Your task to perform on an android device: change notifications settings Image 0: 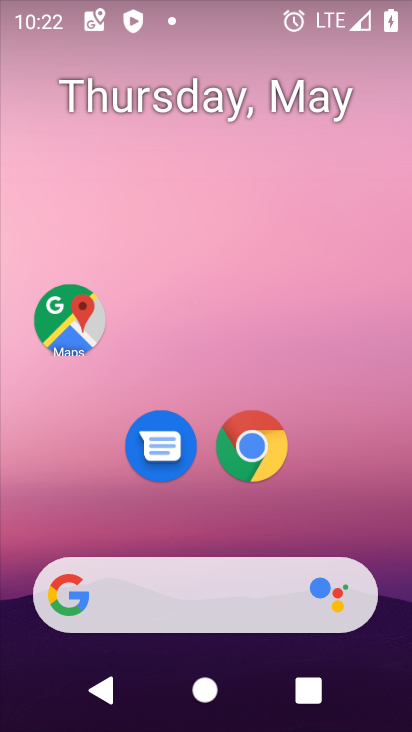
Step 0: drag from (402, 607) to (316, 28)
Your task to perform on an android device: change notifications settings Image 1: 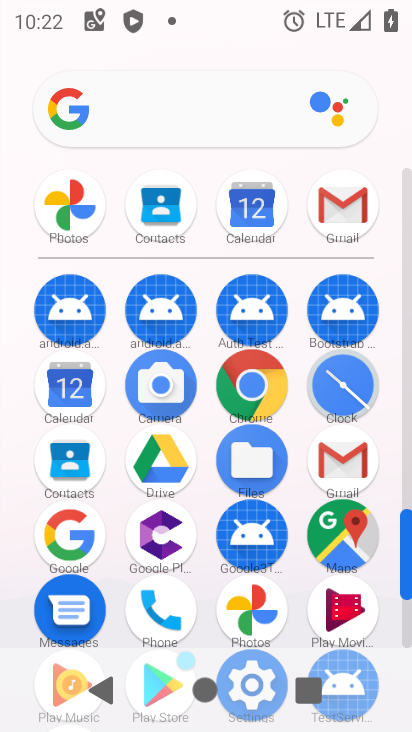
Step 1: click (408, 629)
Your task to perform on an android device: change notifications settings Image 2: 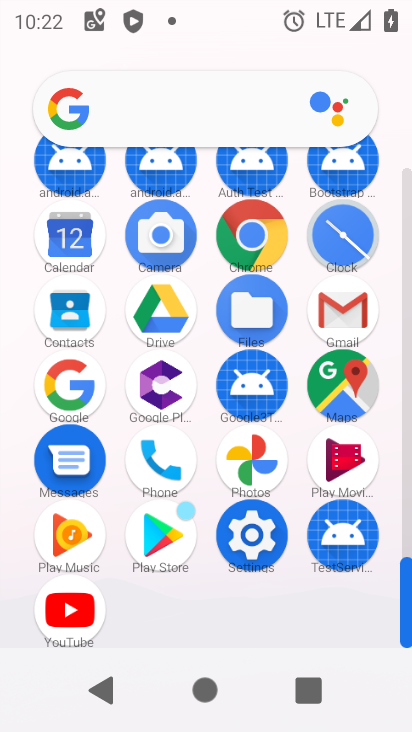
Step 2: click (253, 531)
Your task to perform on an android device: change notifications settings Image 3: 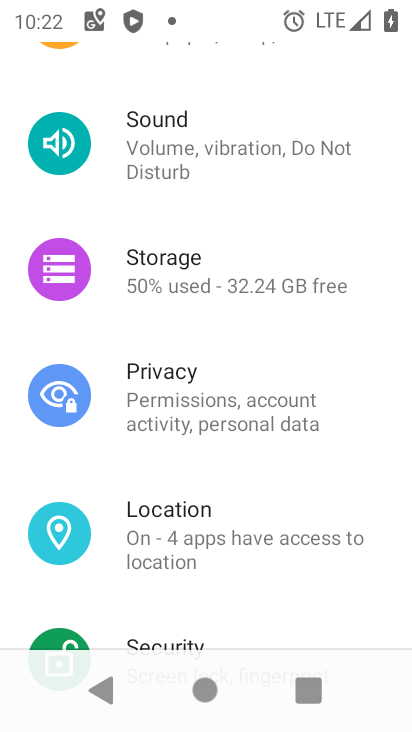
Step 3: drag from (371, 209) to (362, 498)
Your task to perform on an android device: change notifications settings Image 4: 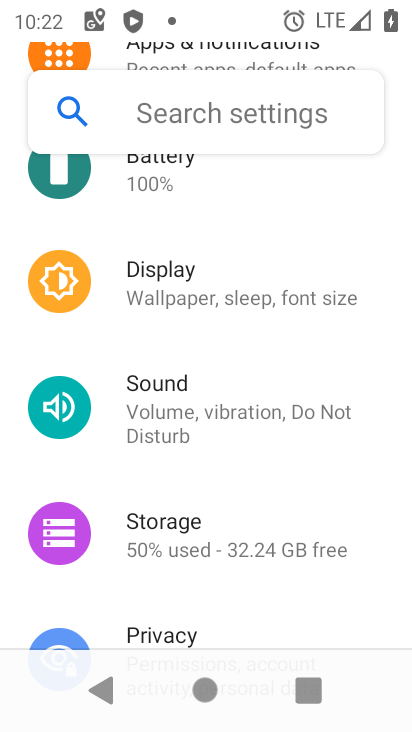
Step 4: drag from (370, 223) to (371, 526)
Your task to perform on an android device: change notifications settings Image 5: 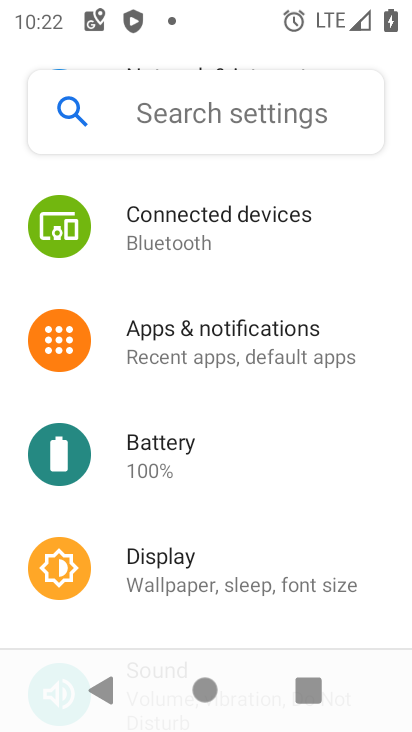
Step 5: click (182, 343)
Your task to perform on an android device: change notifications settings Image 6: 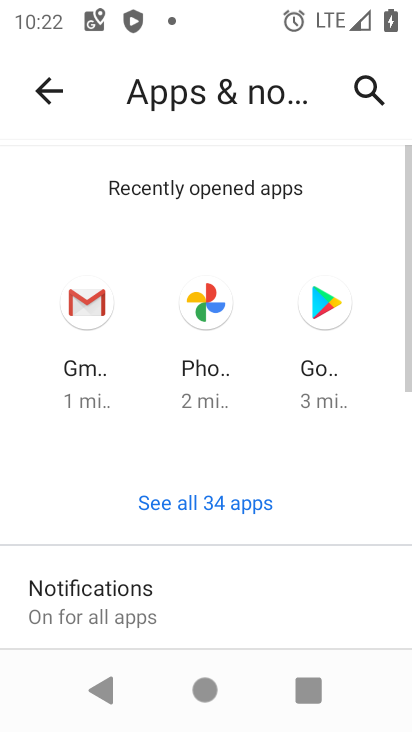
Step 6: drag from (224, 604) to (245, 270)
Your task to perform on an android device: change notifications settings Image 7: 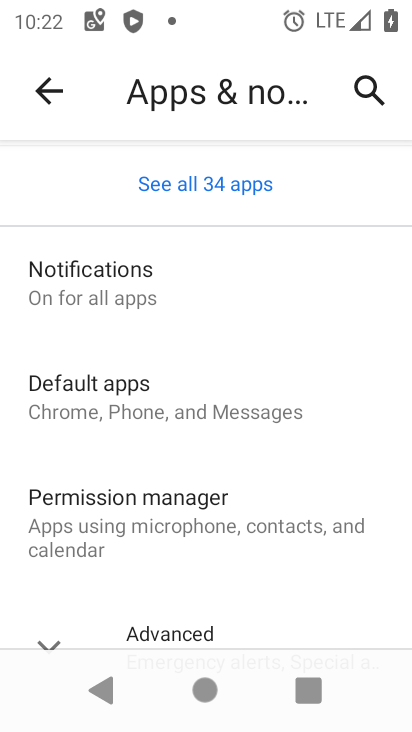
Step 7: click (65, 276)
Your task to perform on an android device: change notifications settings Image 8: 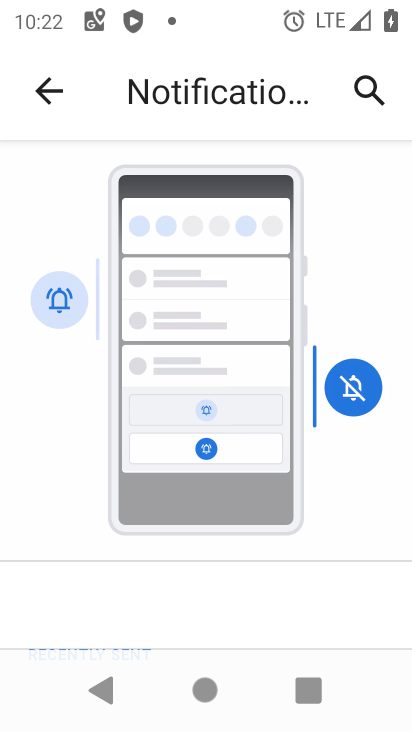
Step 8: drag from (279, 595) to (216, 222)
Your task to perform on an android device: change notifications settings Image 9: 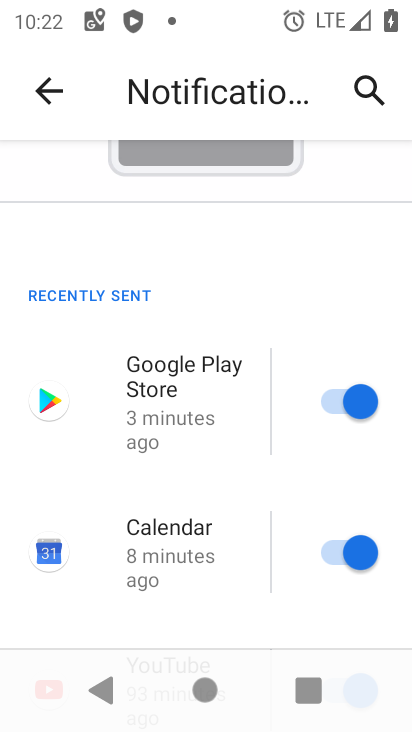
Step 9: drag from (273, 588) to (167, 176)
Your task to perform on an android device: change notifications settings Image 10: 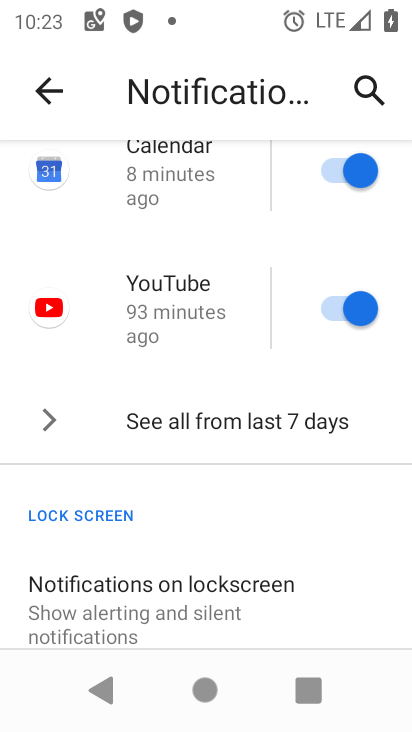
Step 10: drag from (243, 555) to (247, 116)
Your task to perform on an android device: change notifications settings Image 11: 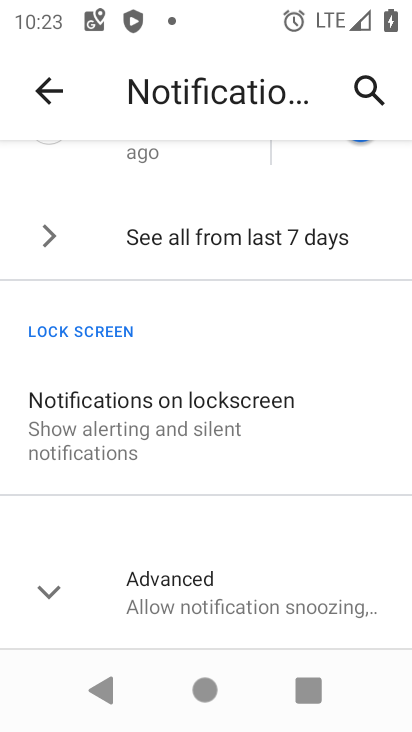
Step 11: click (45, 585)
Your task to perform on an android device: change notifications settings Image 12: 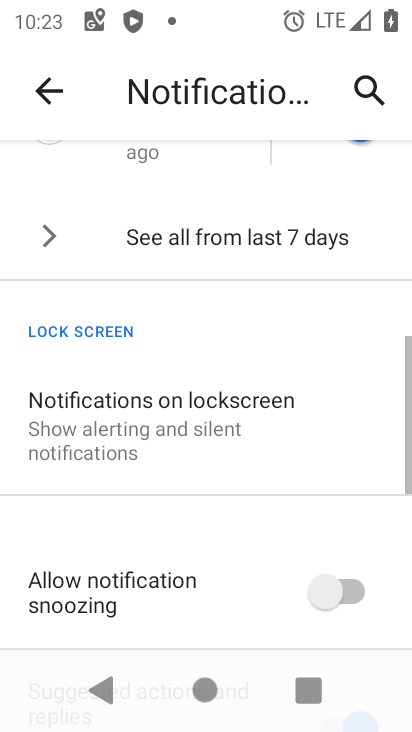
Step 12: drag from (271, 557) to (256, 154)
Your task to perform on an android device: change notifications settings Image 13: 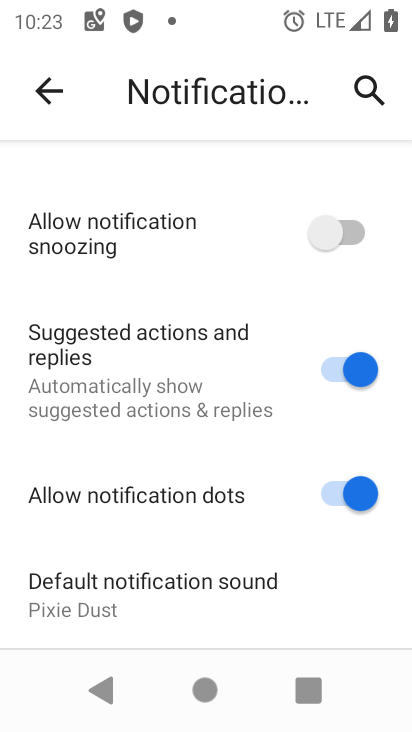
Step 13: click (349, 230)
Your task to perform on an android device: change notifications settings Image 14: 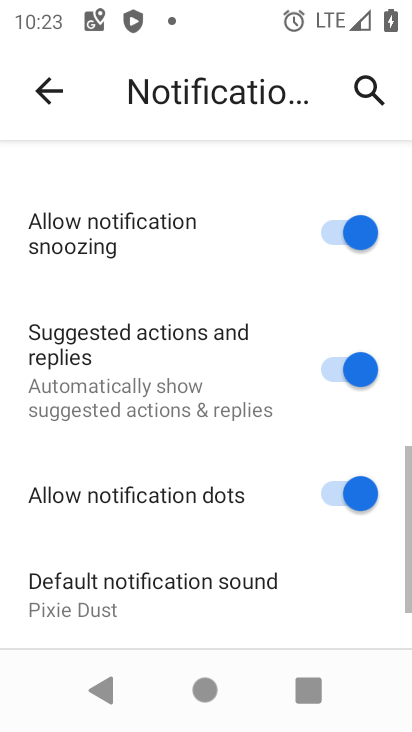
Step 14: click (333, 501)
Your task to perform on an android device: change notifications settings Image 15: 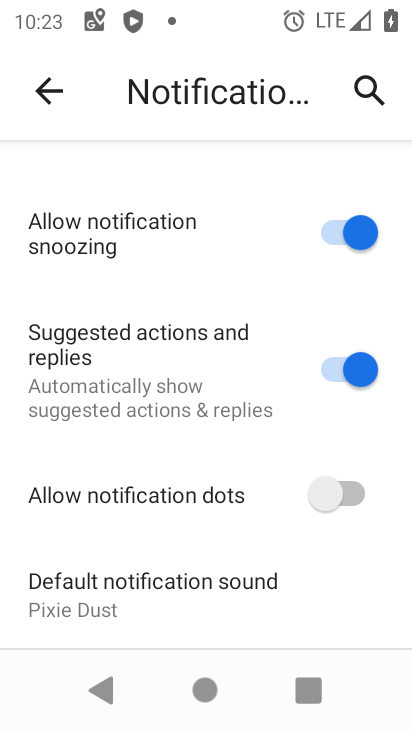
Step 15: task complete